Your task to perform on an android device: Do I have any events this weekend? Image 0: 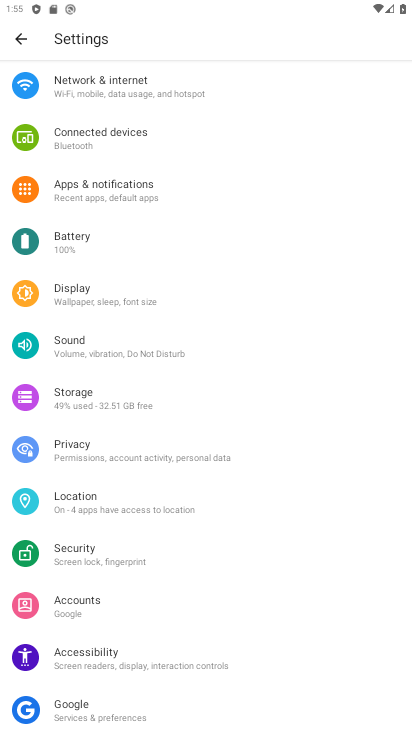
Step 0: press home button
Your task to perform on an android device: Do I have any events this weekend? Image 1: 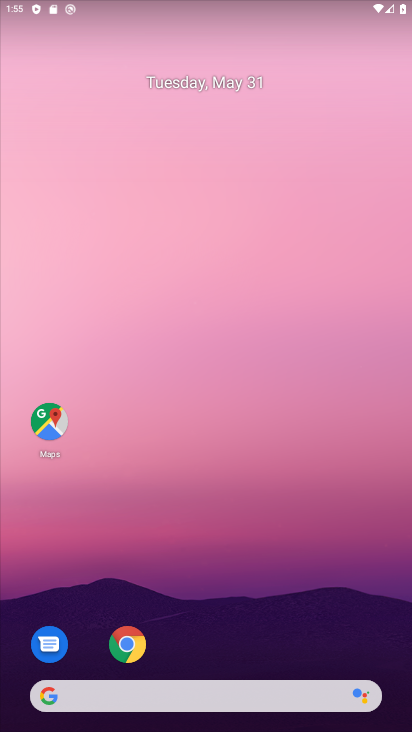
Step 1: drag from (276, 588) to (187, 162)
Your task to perform on an android device: Do I have any events this weekend? Image 2: 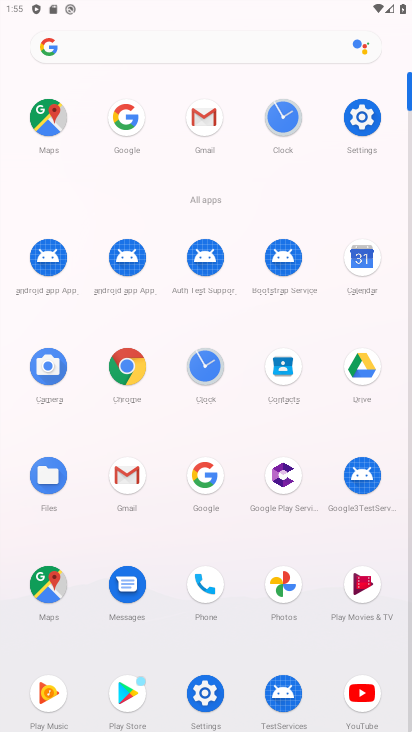
Step 2: click (369, 261)
Your task to perform on an android device: Do I have any events this weekend? Image 3: 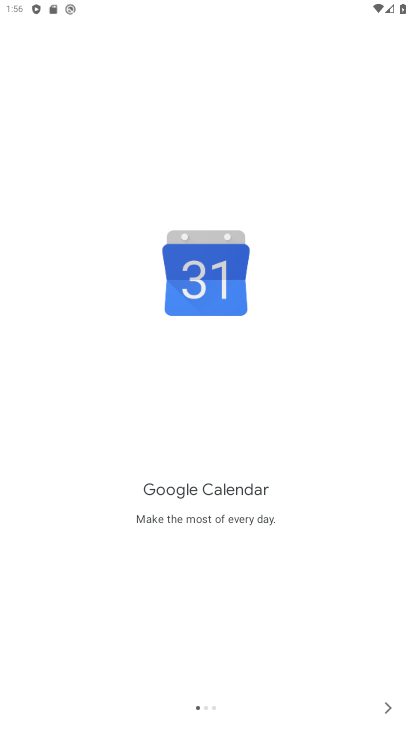
Step 3: click (385, 707)
Your task to perform on an android device: Do I have any events this weekend? Image 4: 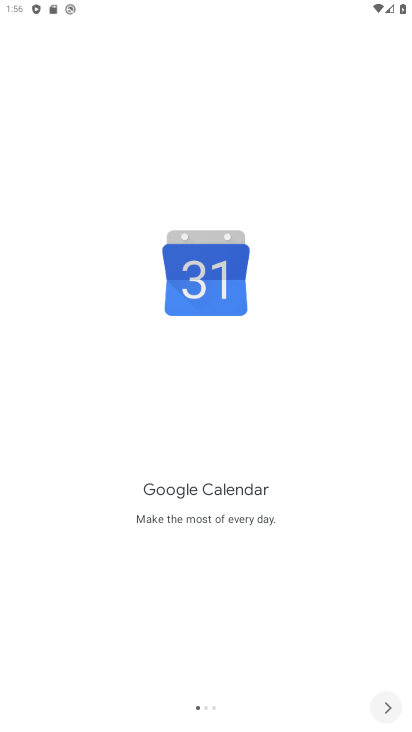
Step 4: click (385, 707)
Your task to perform on an android device: Do I have any events this weekend? Image 5: 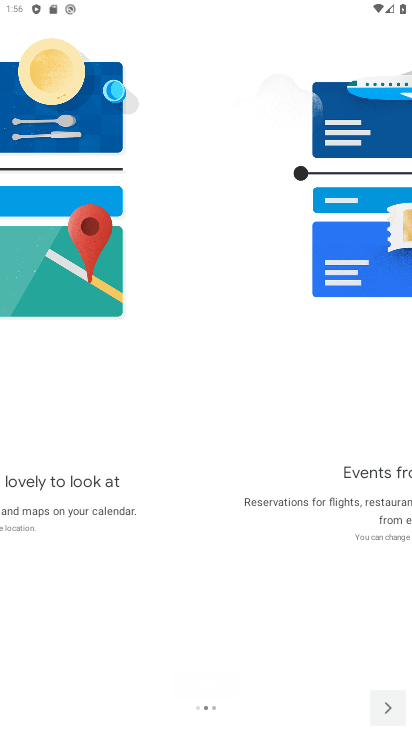
Step 5: click (385, 707)
Your task to perform on an android device: Do I have any events this weekend? Image 6: 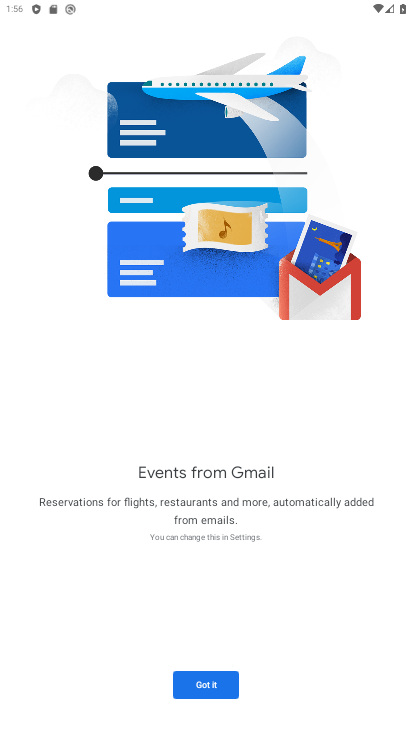
Step 6: click (201, 679)
Your task to perform on an android device: Do I have any events this weekend? Image 7: 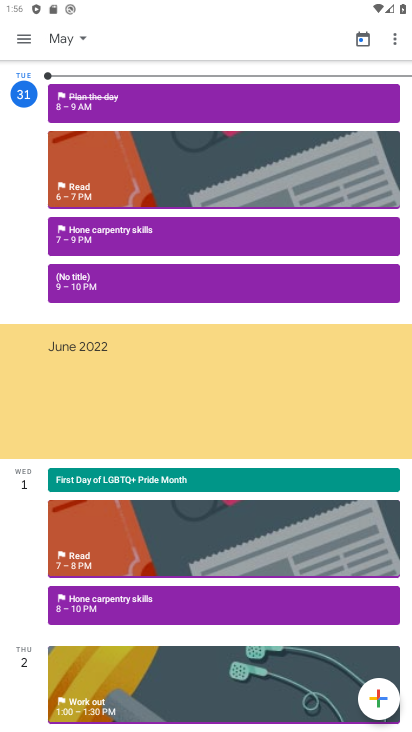
Step 7: click (22, 38)
Your task to perform on an android device: Do I have any events this weekend? Image 8: 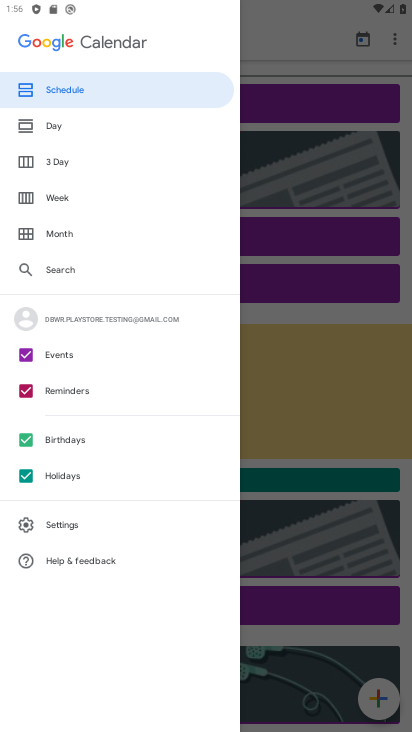
Step 8: click (67, 197)
Your task to perform on an android device: Do I have any events this weekend? Image 9: 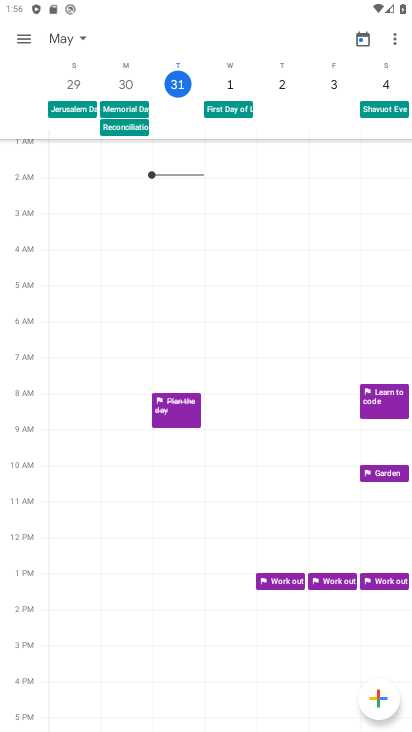
Step 9: task complete